Your task to perform on an android device: change timer sound Image 0: 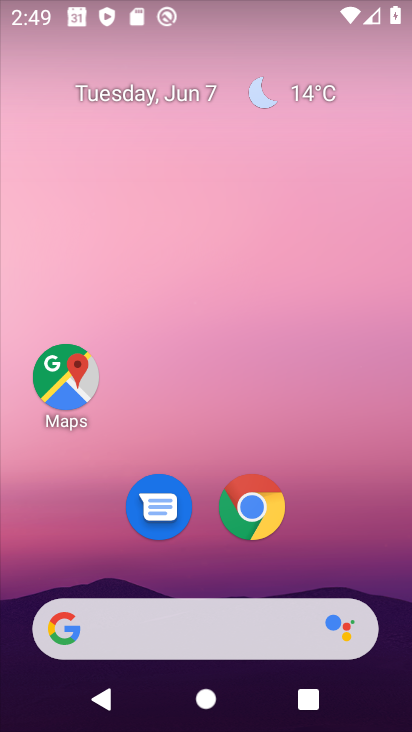
Step 0: drag from (316, 524) to (228, 142)
Your task to perform on an android device: change timer sound Image 1: 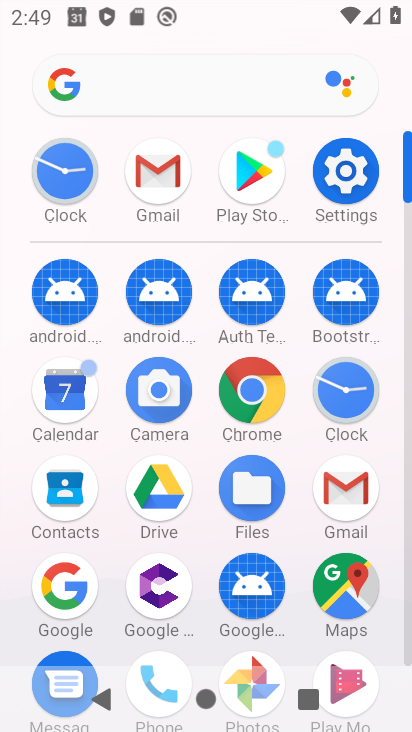
Step 1: click (348, 378)
Your task to perform on an android device: change timer sound Image 2: 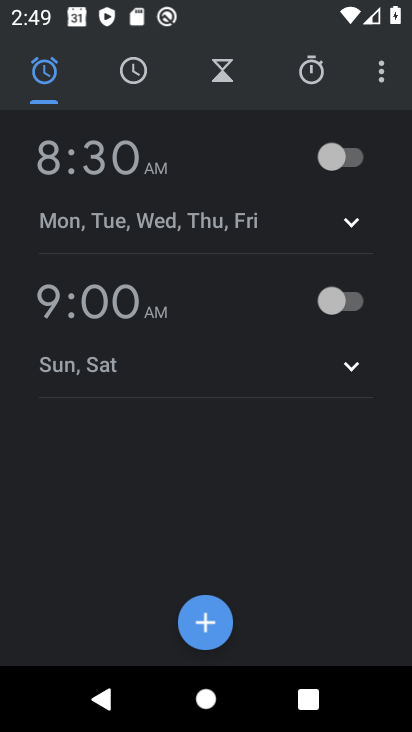
Step 2: click (385, 67)
Your task to perform on an android device: change timer sound Image 3: 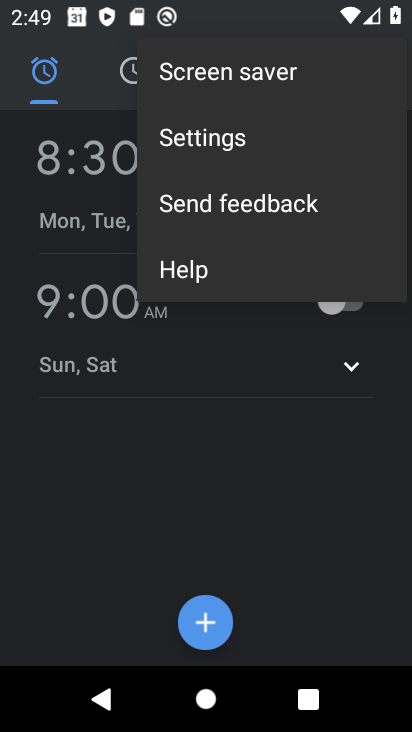
Step 3: click (217, 150)
Your task to perform on an android device: change timer sound Image 4: 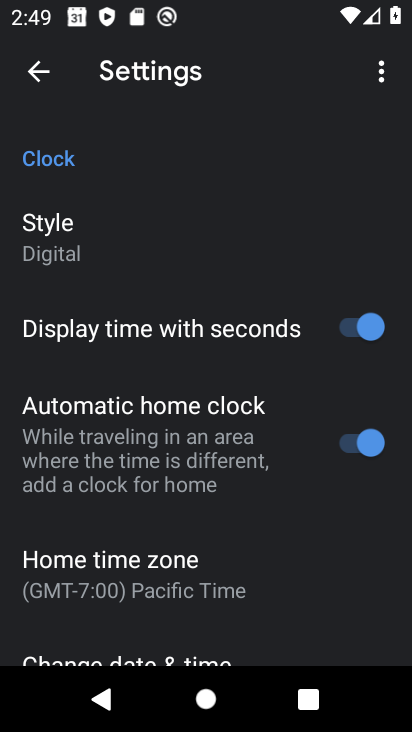
Step 4: drag from (221, 493) to (260, 84)
Your task to perform on an android device: change timer sound Image 5: 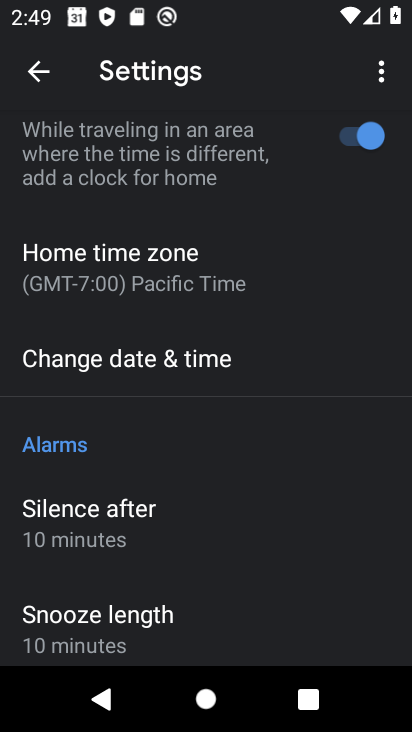
Step 5: drag from (203, 507) to (253, 110)
Your task to perform on an android device: change timer sound Image 6: 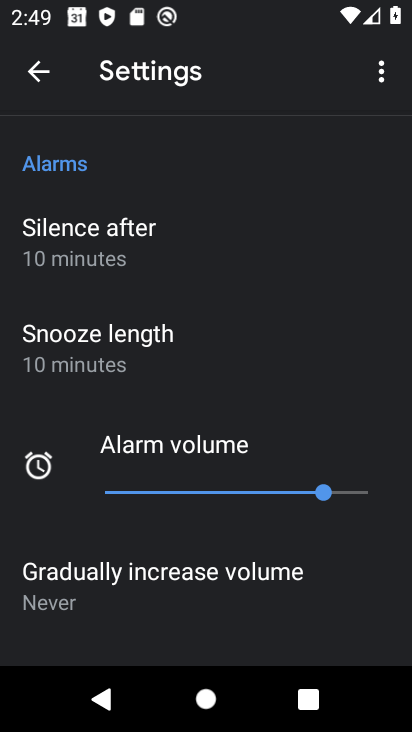
Step 6: drag from (234, 554) to (278, 181)
Your task to perform on an android device: change timer sound Image 7: 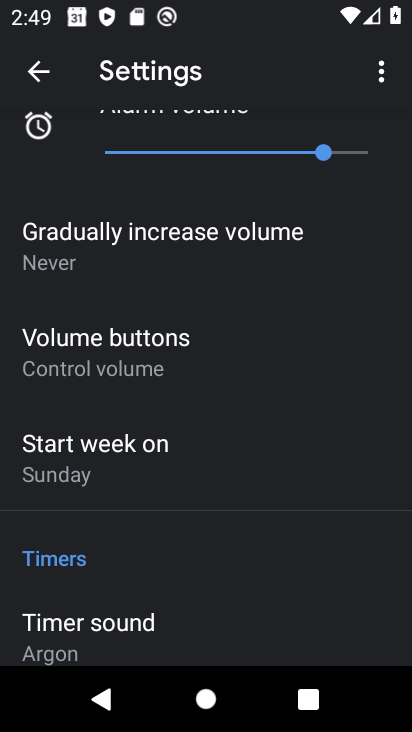
Step 7: drag from (251, 554) to (294, 242)
Your task to perform on an android device: change timer sound Image 8: 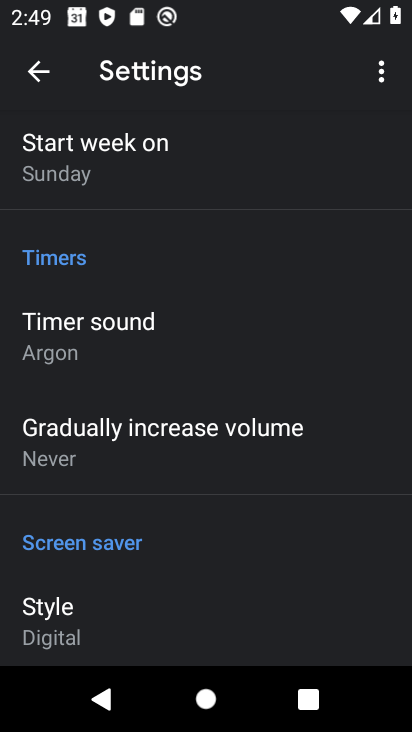
Step 8: click (138, 333)
Your task to perform on an android device: change timer sound Image 9: 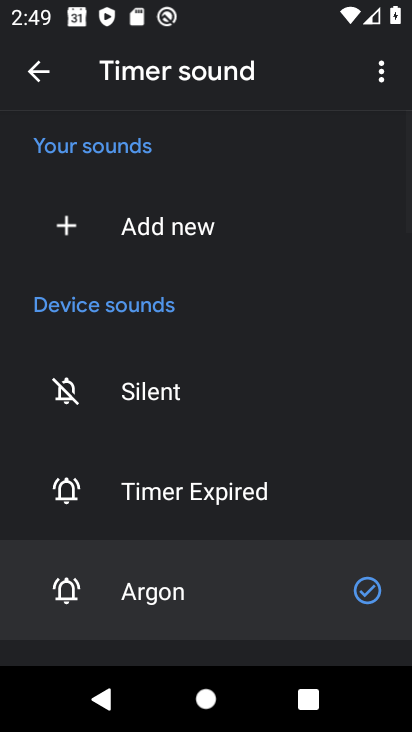
Step 9: click (263, 498)
Your task to perform on an android device: change timer sound Image 10: 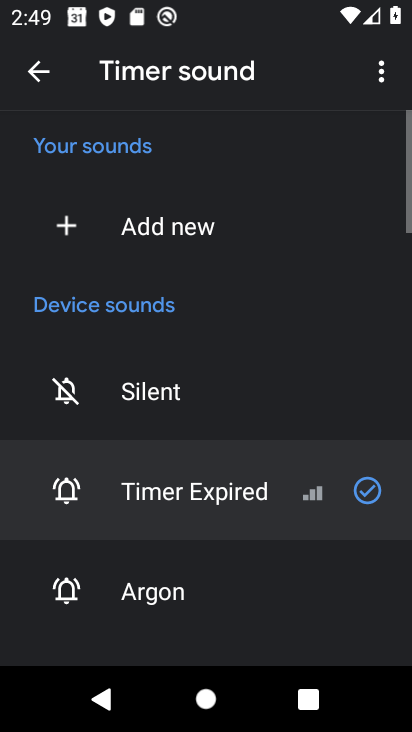
Step 10: task complete